Your task to perform on an android device: turn off location Image 0: 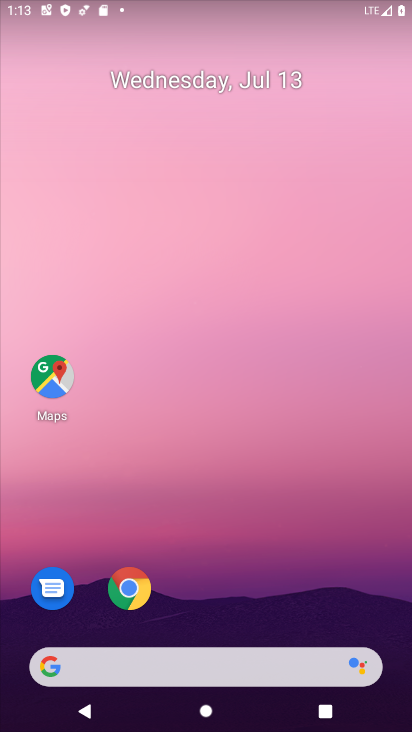
Step 0: drag from (391, 634) to (369, 256)
Your task to perform on an android device: turn off location Image 1: 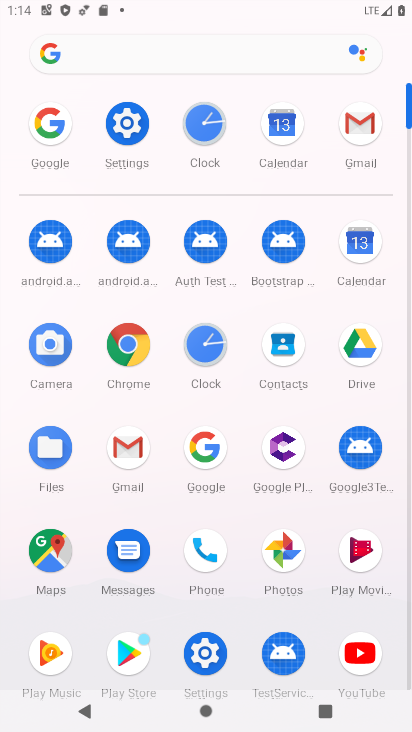
Step 1: click (132, 125)
Your task to perform on an android device: turn off location Image 2: 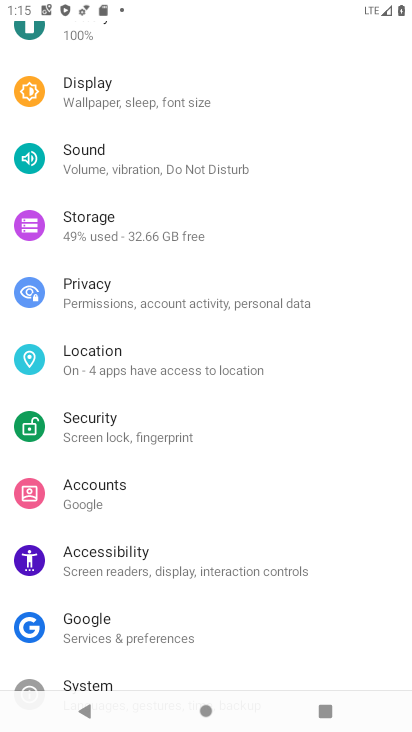
Step 2: click (110, 361)
Your task to perform on an android device: turn off location Image 3: 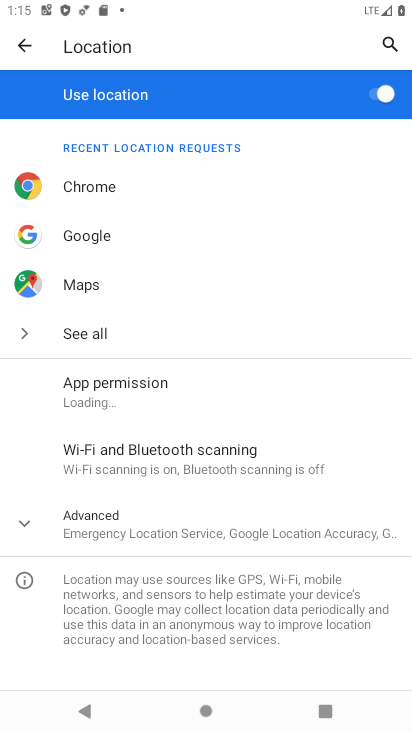
Step 3: click (377, 93)
Your task to perform on an android device: turn off location Image 4: 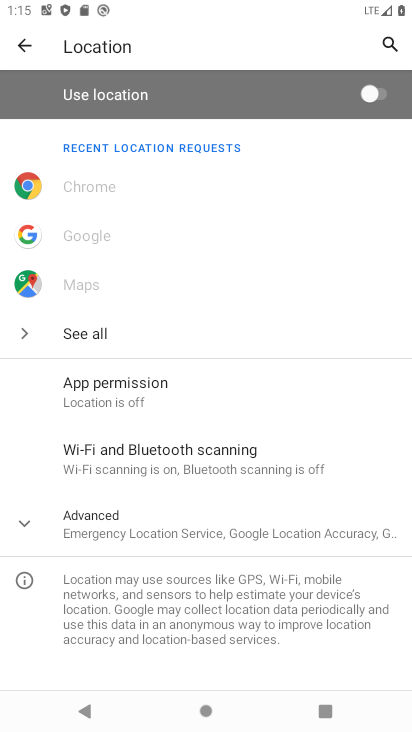
Step 4: task complete